Your task to perform on an android device: Open CNN.com Image 0: 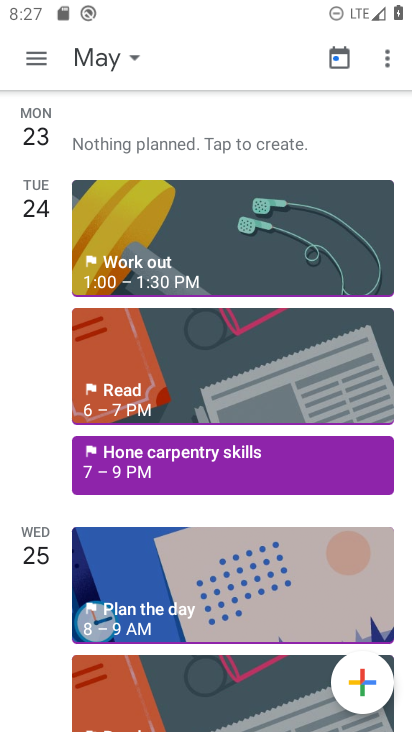
Step 0: press home button
Your task to perform on an android device: Open CNN.com Image 1: 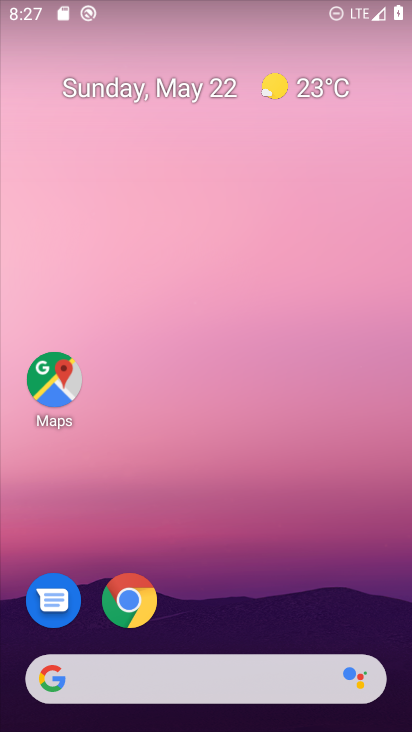
Step 1: drag from (368, 625) to (230, 38)
Your task to perform on an android device: Open CNN.com Image 2: 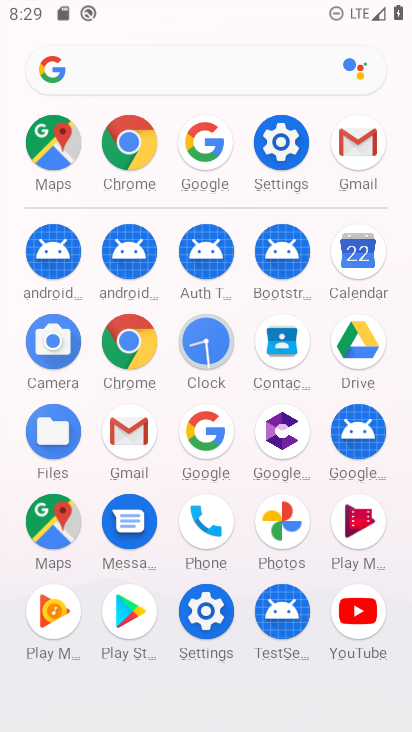
Step 2: click (216, 432)
Your task to perform on an android device: Open CNN.com Image 3: 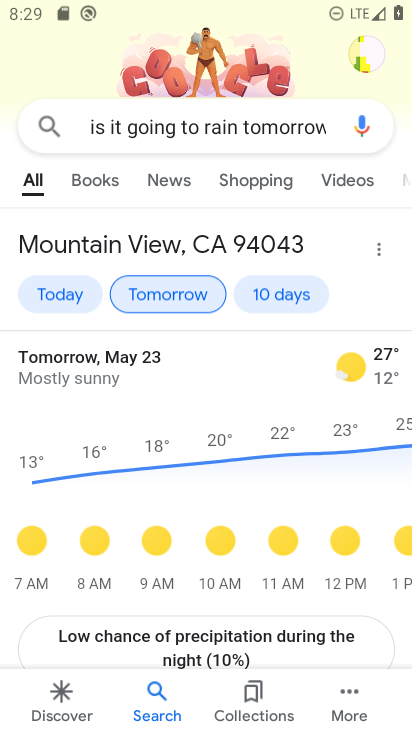
Step 3: press back button
Your task to perform on an android device: Open CNN.com Image 4: 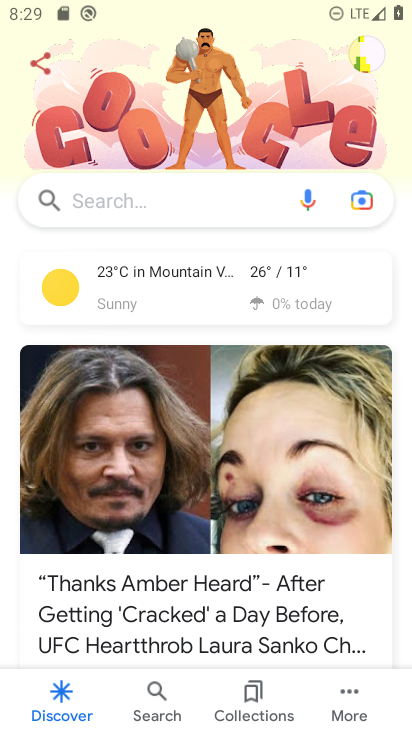
Step 4: click (147, 196)
Your task to perform on an android device: Open CNN.com Image 5: 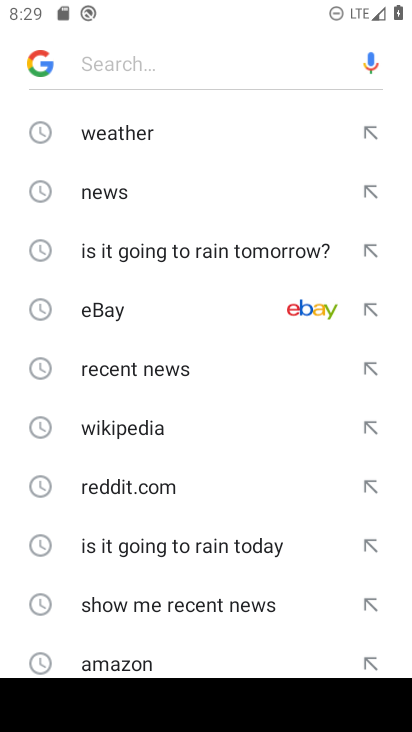
Step 5: drag from (156, 603) to (176, 127)
Your task to perform on an android device: Open CNN.com Image 6: 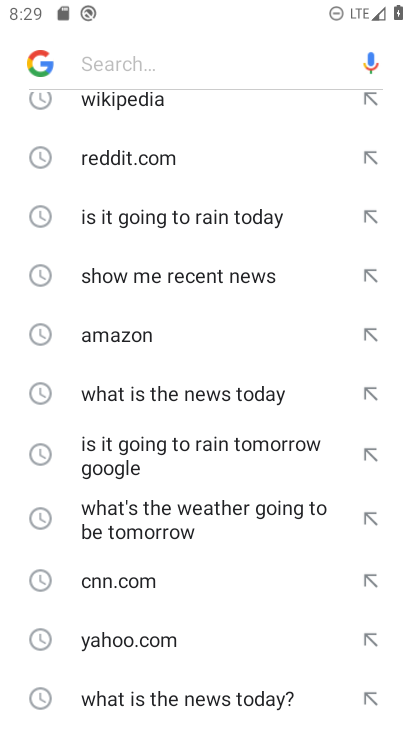
Step 6: click (145, 581)
Your task to perform on an android device: Open CNN.com Image 7: 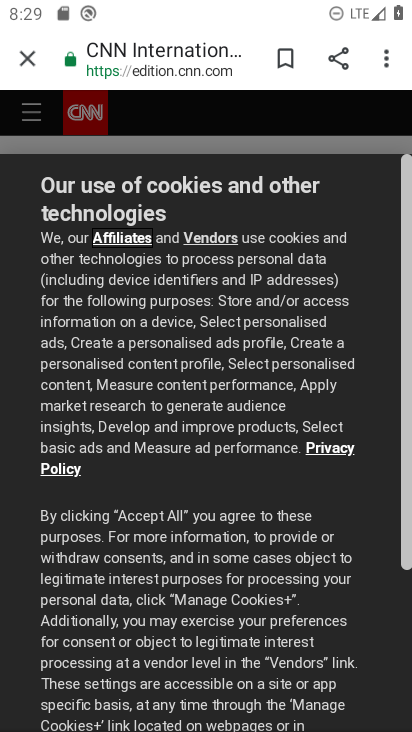
Step 7: task complete